Your task to perform on an android device: turn notification dots off Image 0: 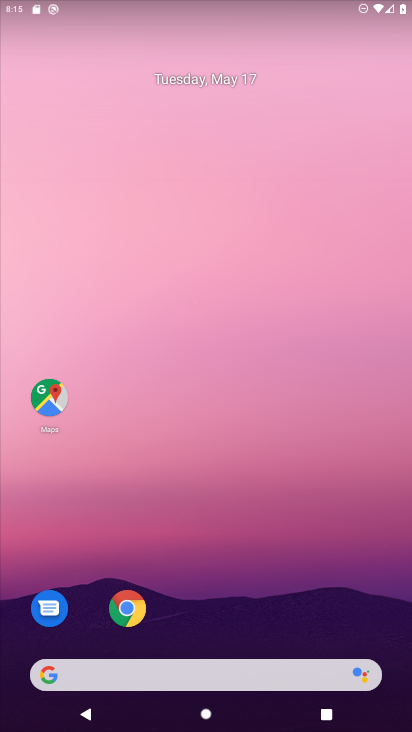
Step 0: drag from (213, 620) to (291, 243)
Your task to perform on an android device: turn notification dots off Image 1: 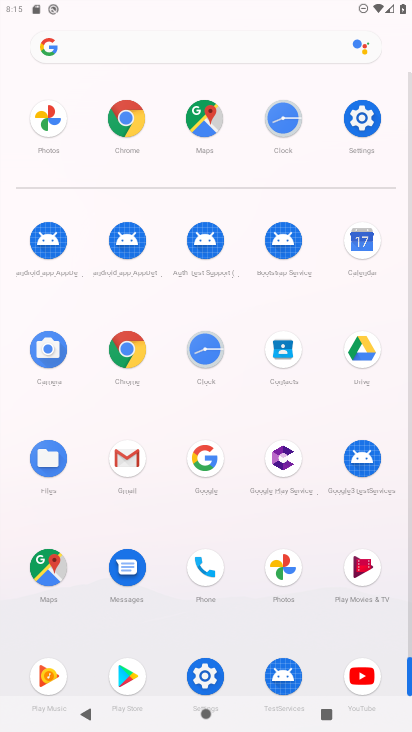
Step 1: click (365, 136)
Your task to perform on an android device: turn notification dots off Image 2: 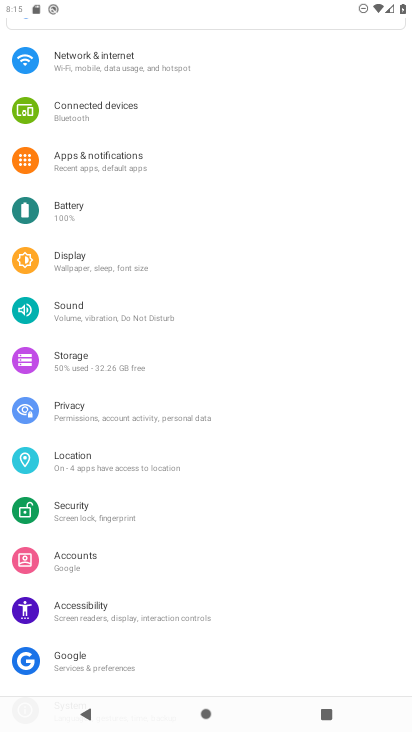
Step 2: click (132, 169)
Your task to perform on an android device: turn notification dots off Image 3: 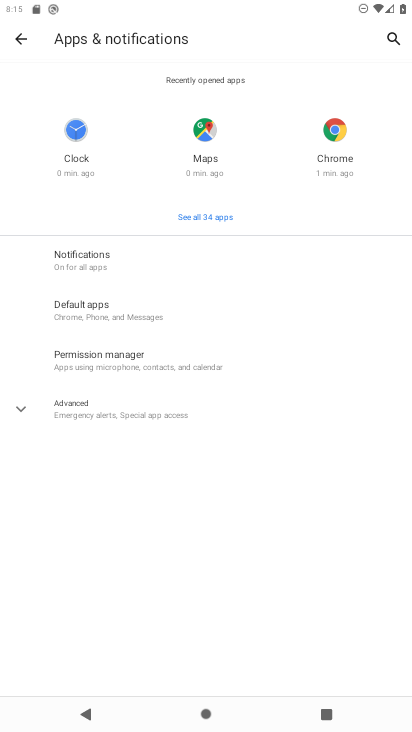
Step 3: click (116, 259)
Your task to perform on an android device: turn notification dots off Image 4: 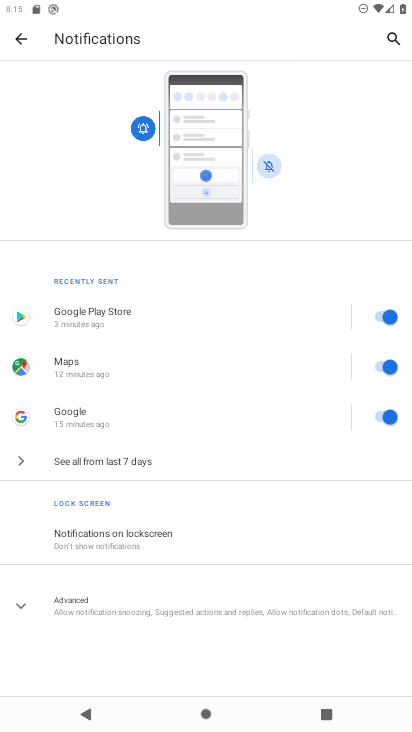
Step 4: click (150, 614)
Your task to perform on an android device: turn notification dots off Image 5: 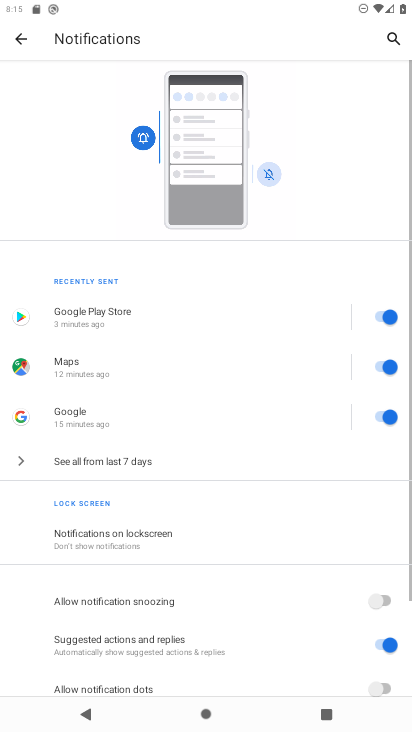
Step 5: task complete